Your task to perform on an android device: Open settings Image 0: 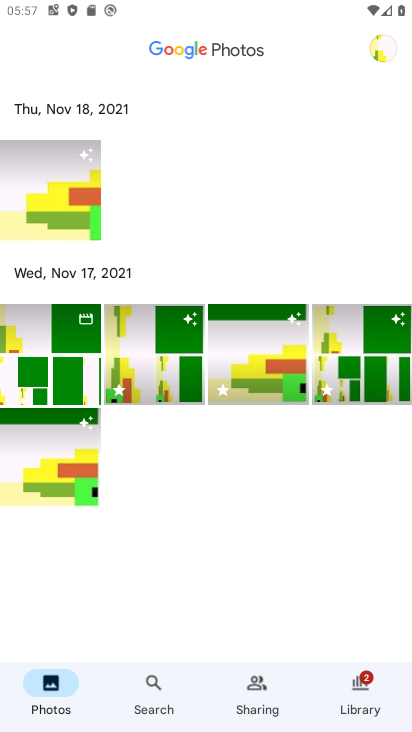
Step 0: press home button
Your task to perform on an android device: Open settings Image 1: 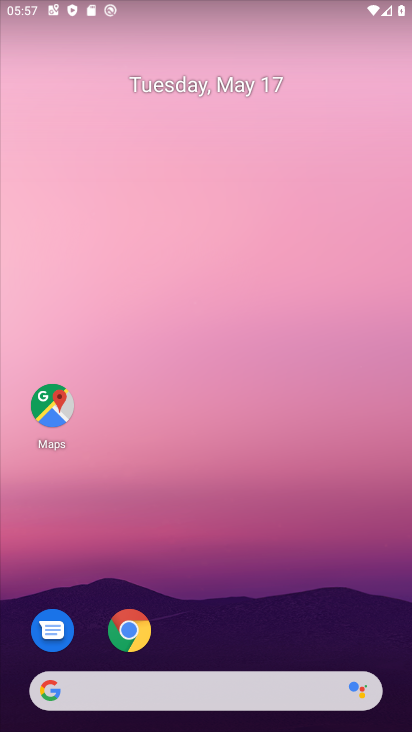
Step 1: drag from (269, 582) to (291, 72)
Your task to perform on an android device: Open settings Image 2: 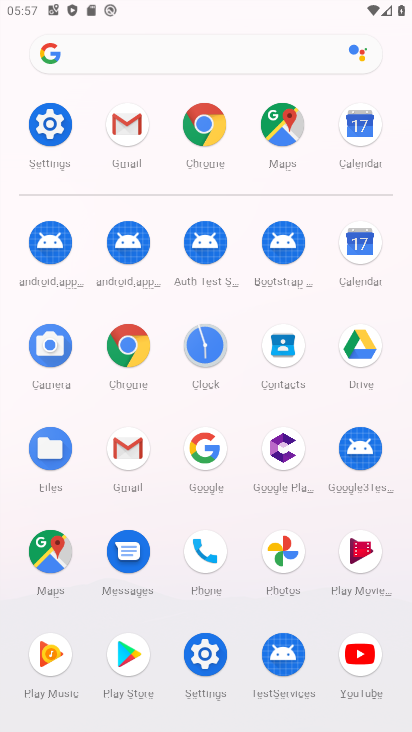
Step 2: click (58, 115)
Your task to perform on an android device: Open settings Image 3: 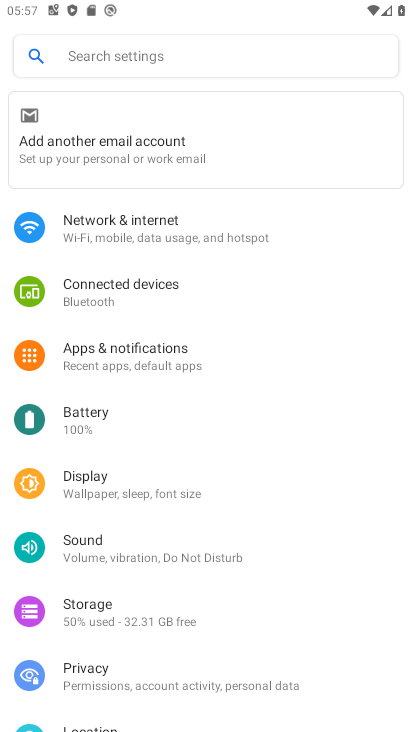
Step 3: task complete